Your task to perform on an android device: Open my contact list Image 0: 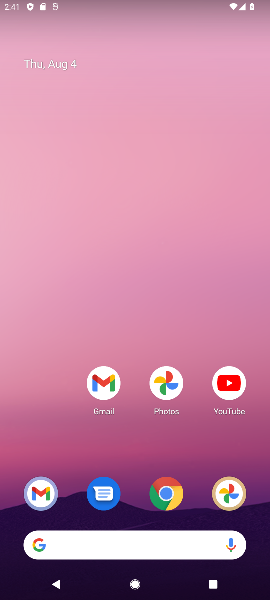
Step 0: drag from (146, 537) to (167, 179)
Your task to perform on an android device: Open my contact list Image 1: 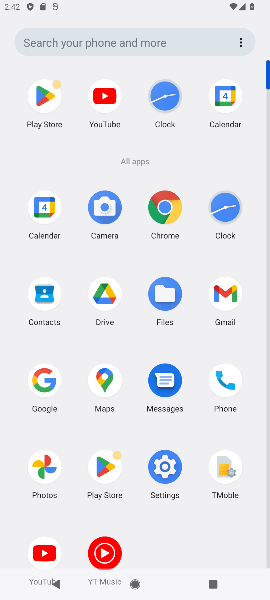
Step 1: click (44, 291)
Your task to perform on an android device: Open my contact list Image 2: 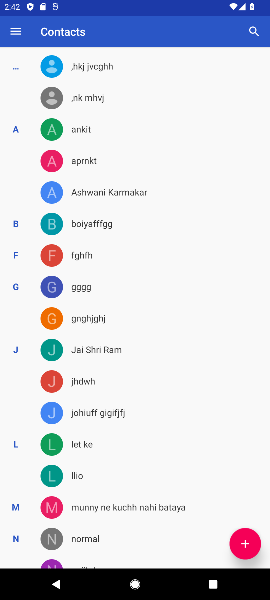
Step 2: task complete